Your task to perform on an android device: Go to calendar. Show me events next week Image 0: 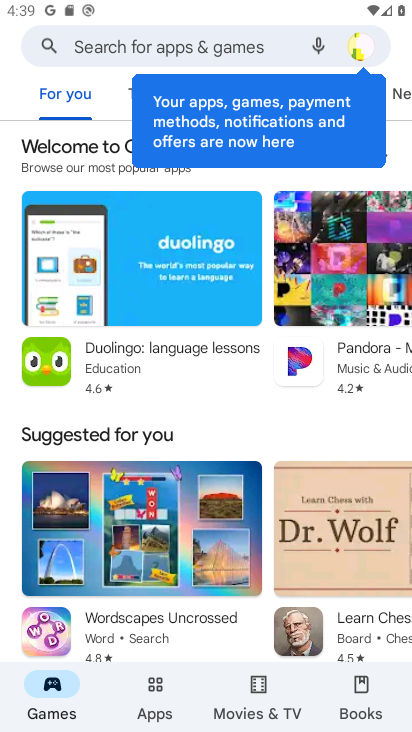
Step 0: press home button
Your task to perform on an android device: Go to calendar. Show me events next week Image 1: 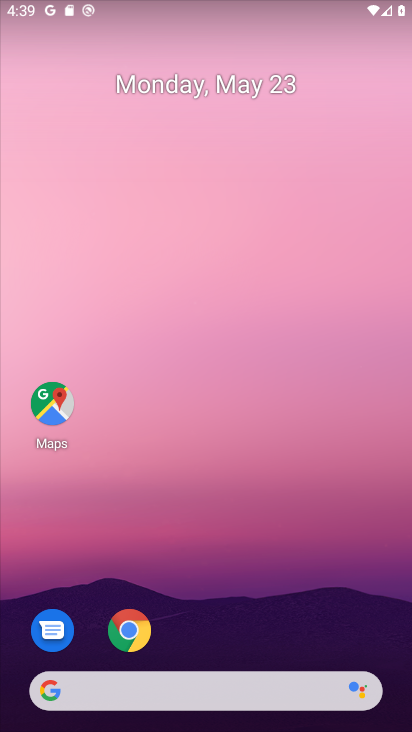
Step 1: drag from (215, 655) to (266, 171)
Your task to perform on an android device: Go to calendar. Show me events next week Image 2: 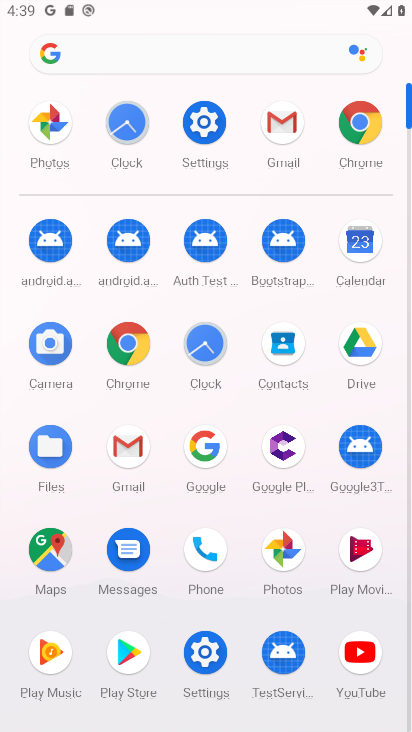
Step 2: click (352, 254)
Your task to perform on an android device: Go to calendar. Show me events next week Image 3: 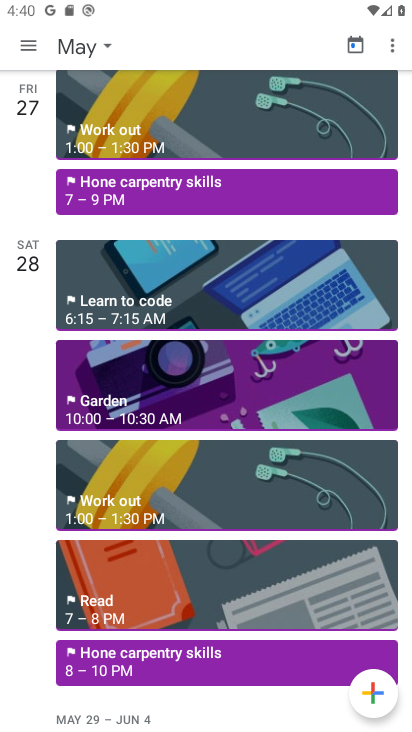
Step 3: click (98, 42)
Your task to perform on an android device: Go to calendar. Show me events next week Image 4: 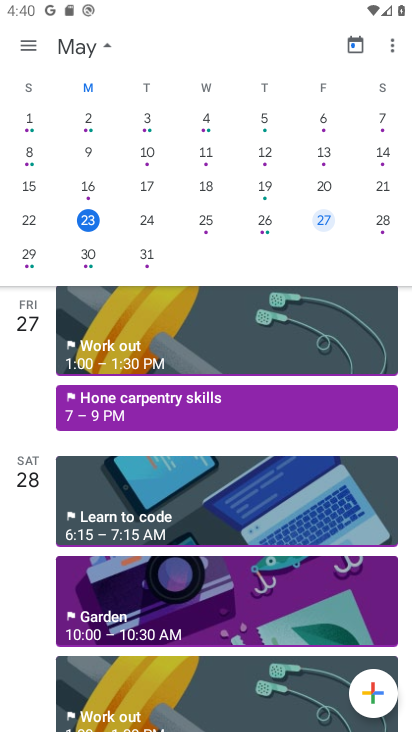
Step 4: click (37, 253)
Your task to perform on an android device: Go to calendar. Show me events next week Image 5: 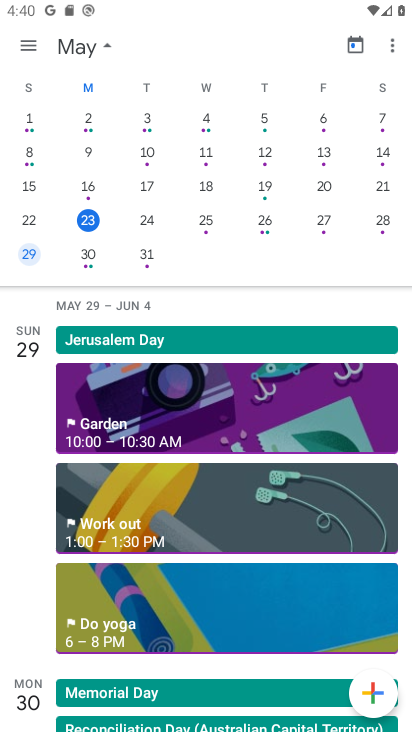
Step 5: click (112, 43)
Your task to perform on an android device: Go to calendar. Show me events next week Image 6: 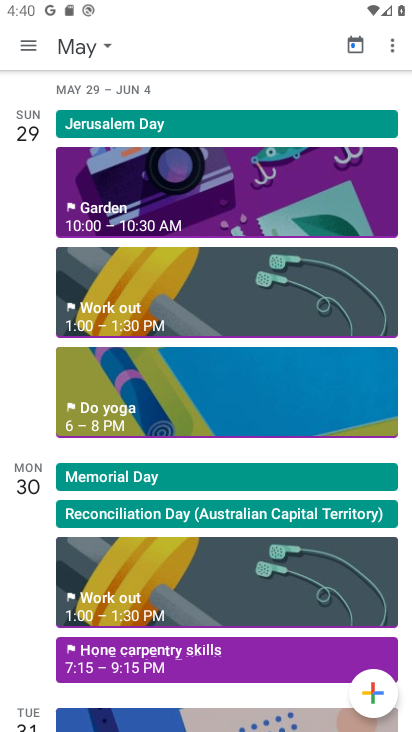
Step 6: task complete